Your task to perform on an android device: Open wifi settings Image 0: 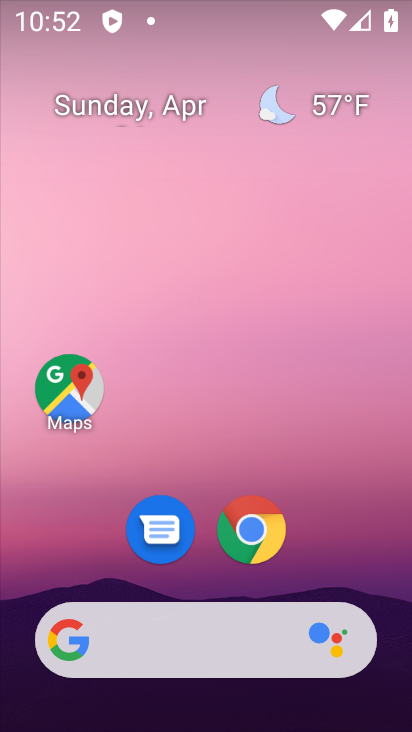
Step 0: drag from (214, 580) to (145, 69)
Your task to perform on an android device: Open wifi settings Image 1: 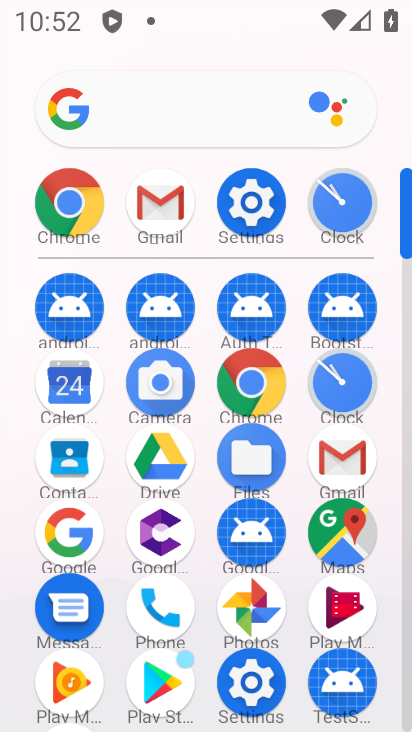
Step 1: click (249, 210)
Your task to perform on an android device: Open wifi settings Image 2: 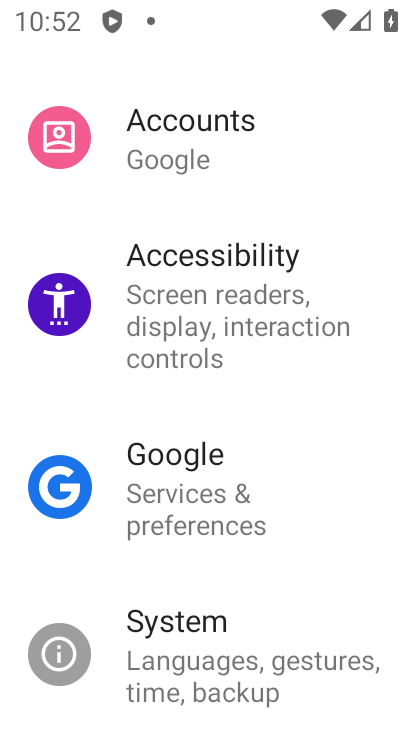
Step 2: drag from (282, 207) to (324, 601)
Your task to perform on an android device: Open wifi settings Image 3: 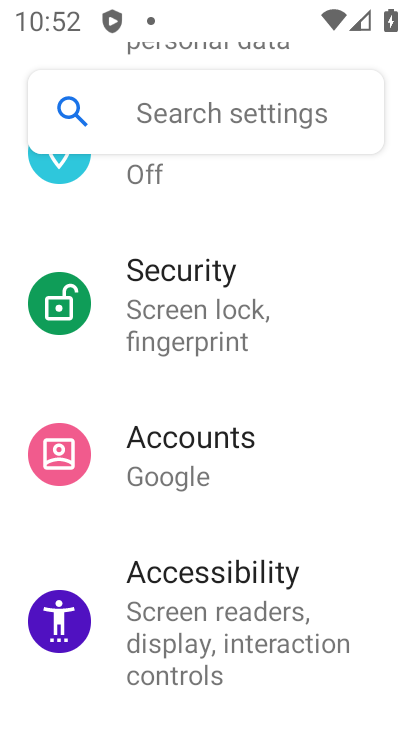
Step 3: drag from (260, 231) to (254, 579)
Your task to perform on an android device: Open wifi settings Image 4: 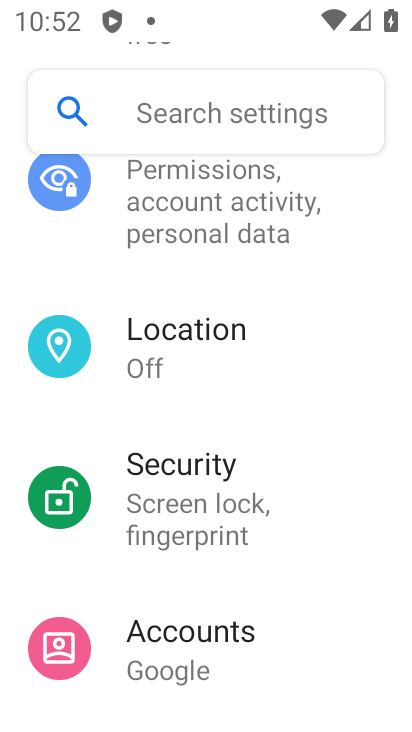
Step 4: drag from (254, 279) to (261, 638)
Your task to perform on an android device: Open wifi settings Image 5: 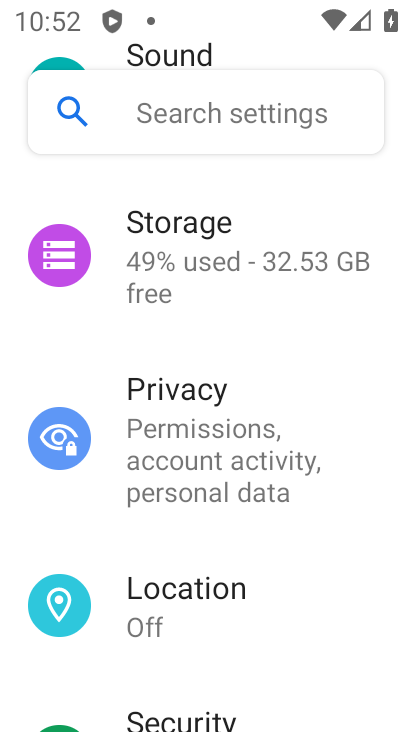
Step 5: drag from (272, 174) to (278, 624)
Your task to perform on an android device: Open wifi settings Image 6: 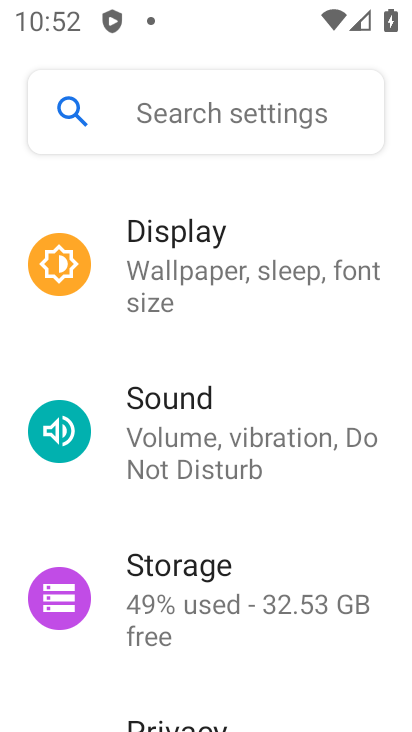
Step 6: drag from (273, 187) to (238, 619)
Your task to perform on an android device: Open wifi settings Image 7: 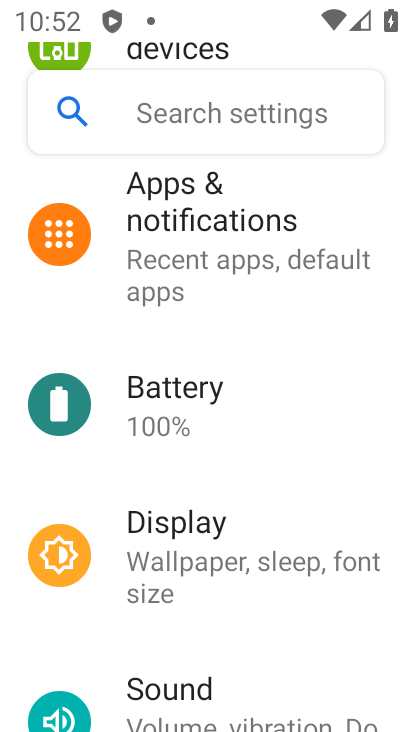
Step 7: drag from (233, 337) to (237, 717)
Your task to perform on an android device: Open wifi settings Image 8: 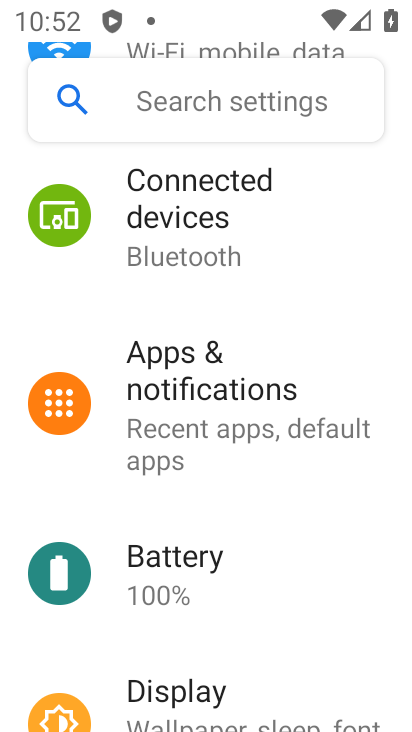
Step 8: drag from (273, 330) to (261, 655)
Your task to perform on an android device: Open wifi settings Image 9: 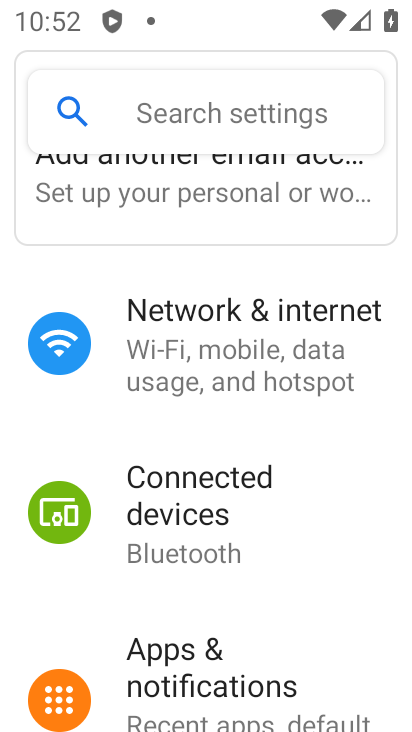
Step 9: click (234, 321)
Your task to perform on an android device: Open wifi settings Image 10: 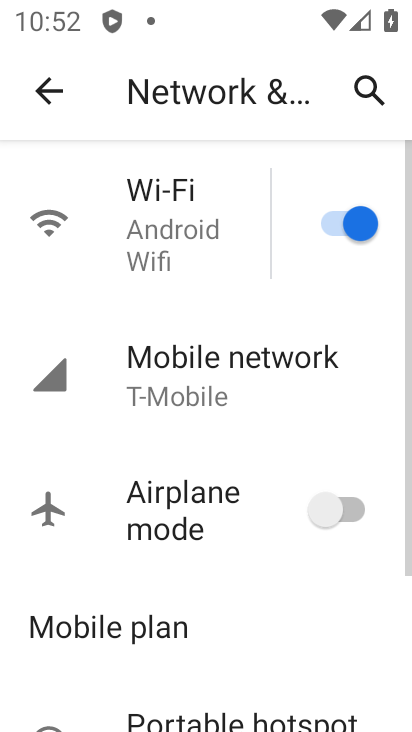
Step 10: click (144, 204)
Your task to perform on an android device: Open wifi settings Image 11: 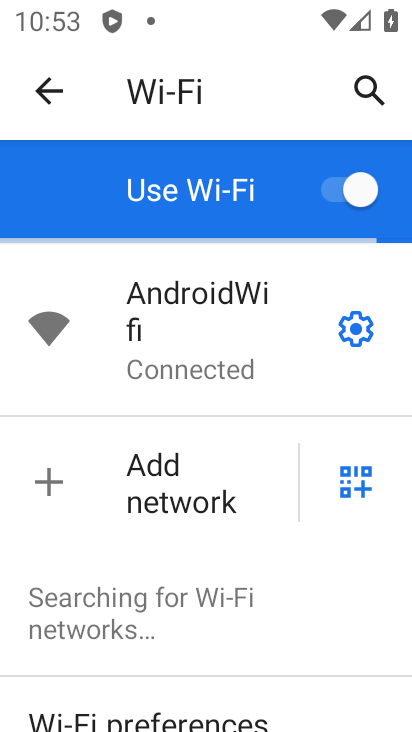
Step 11: task complete